Your task to perform on an android device: change the clock style Image 0: 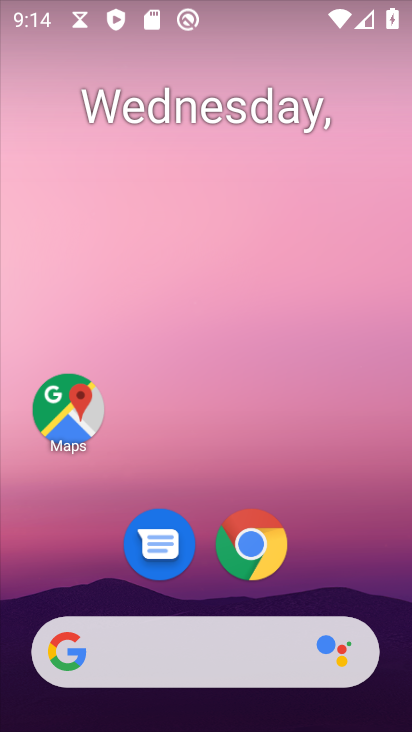
Step 0: drag from (174, 644) to (305, 27)
Your task to perform on an android device: change the clock style Image 1: 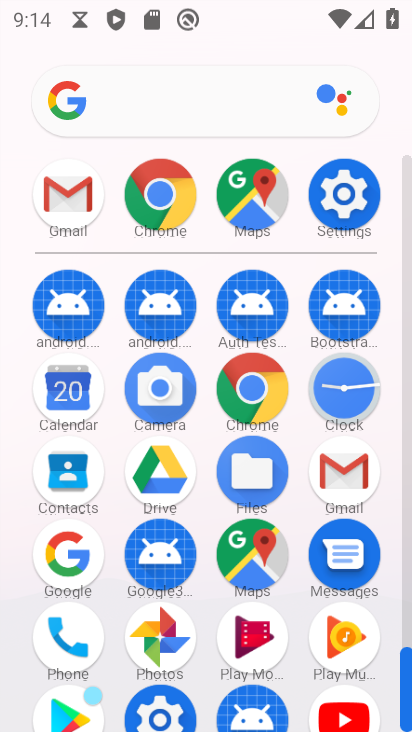
Step 1: click (351, 398)
Your task to perform on an android device: change the clock style Image 2: 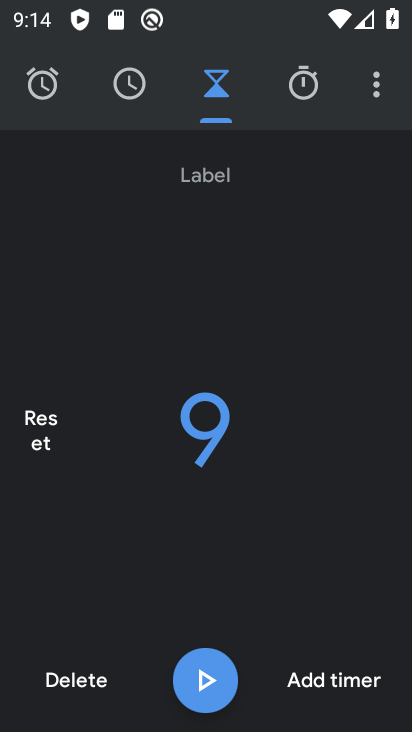
Step 2: click (375, 84)
Your task to perform on an android device: change the clock style Image 3: 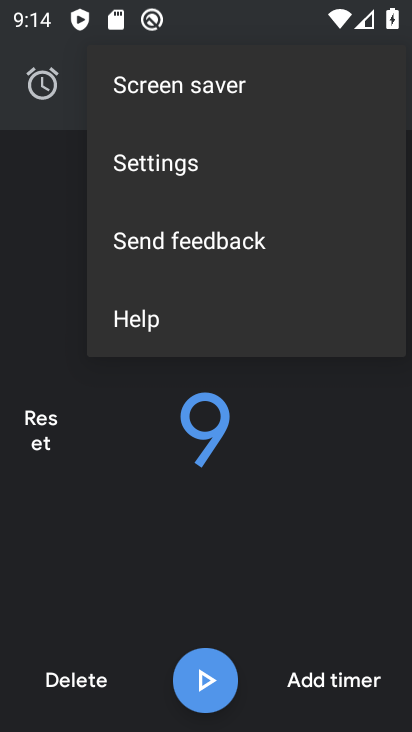
Step 3: click (143, 154)
Your task to perform on an android device: change the clock style Image 4: 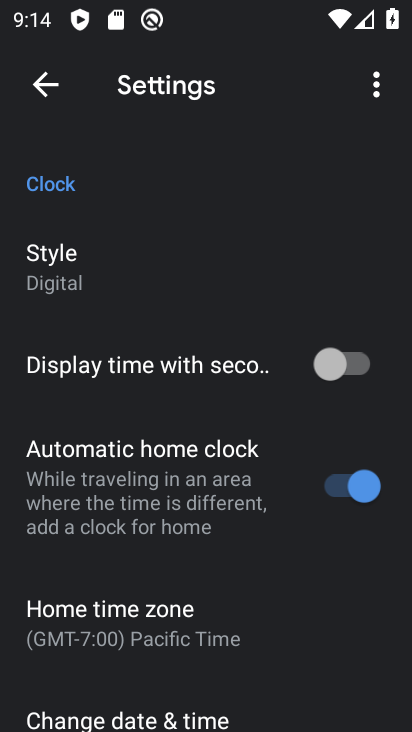
Step 4: click (69, 257)
Your task to perform on an android device: change the clock style Image 5: 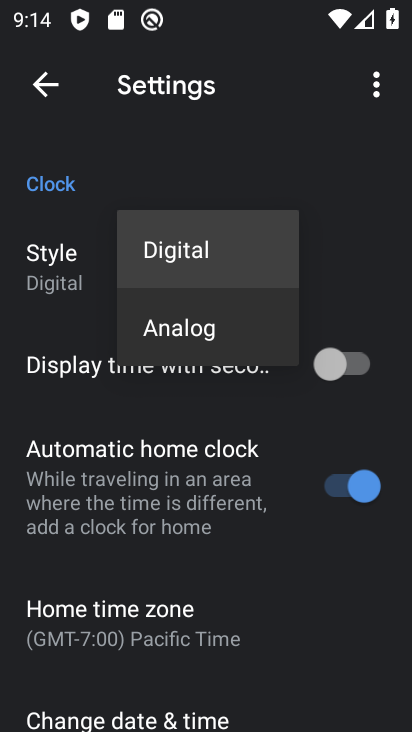
Step 5: click (164, 320)
Your task to perform on an android device: change the clock style Image 6: 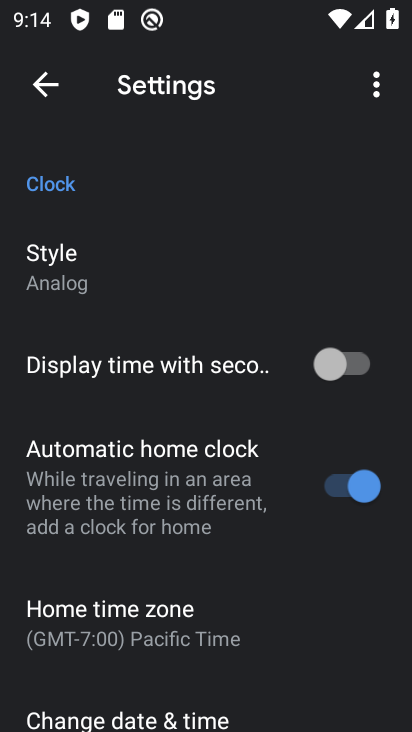
Step 6: task complete